Your task to perform on an android device: visit the assistant section in the google photos Image 0: 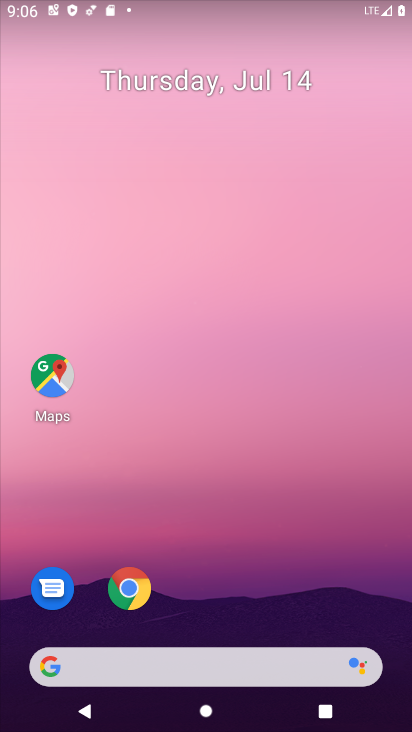
Step 0: drag from (380, 632) to (186, 88)
Your task to perform on an android device: visit the assistant section in the google photos Image 1: 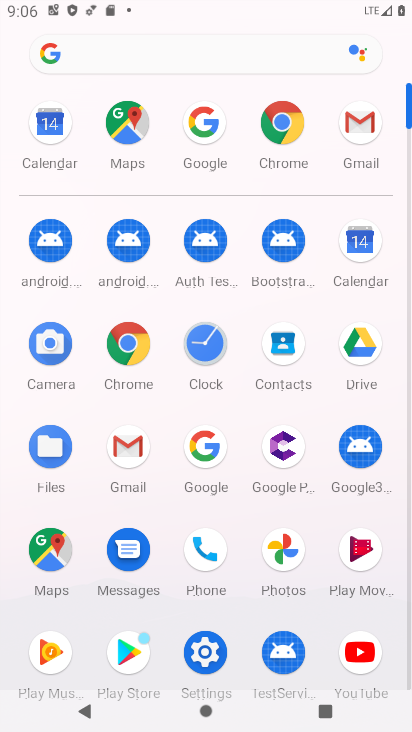
Step 1: click (263, 550)
Your task to perform on an android device: visit the assistant section in the google photos Image 2: 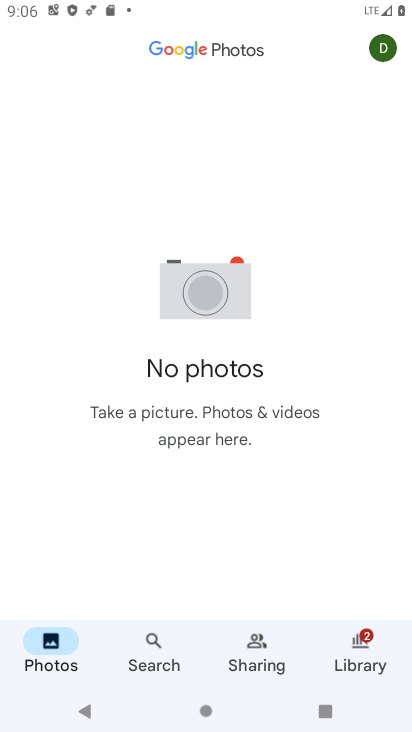
Step 2: task complete